Your task to perform on an android device: Open ESPN.com Image 0: 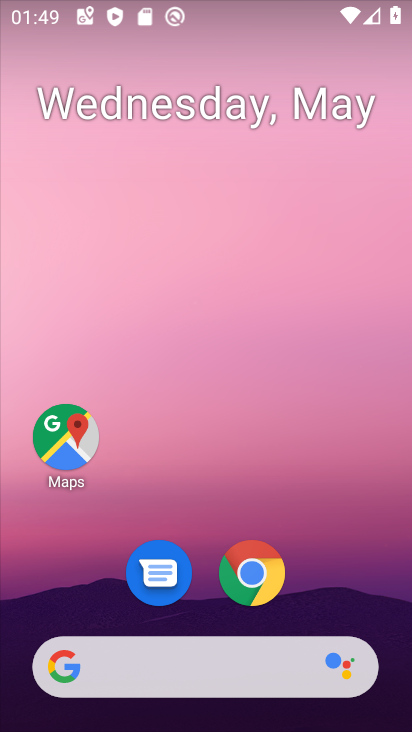
Step 0: click (249, 568)
Your task to perform on an android device: Open ESPN.com Image 1: 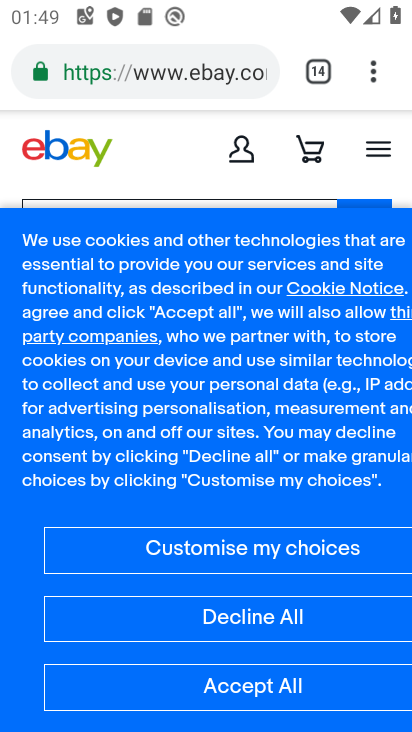
Step 1: click (379, 74)
Your task to perform on an android device: Open ESPN.com Image 2: 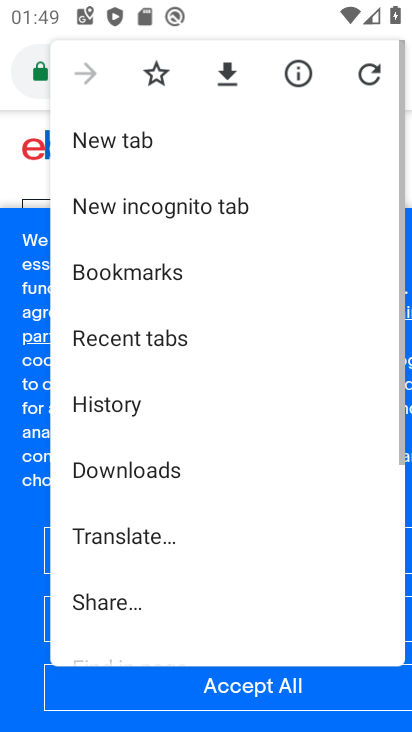
Step 2: click (142, 146)
Your task to perform on an android device: Open ESPN.com Image 3: 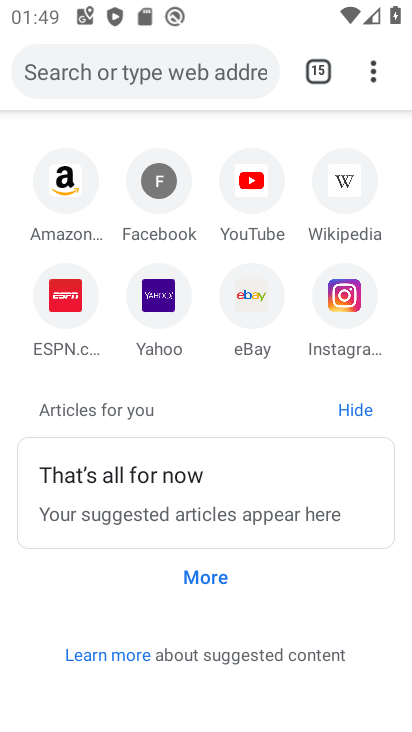
Step 3: click (73, 305)
Your task to perform on an android device: Open ESPN.com Image 4: 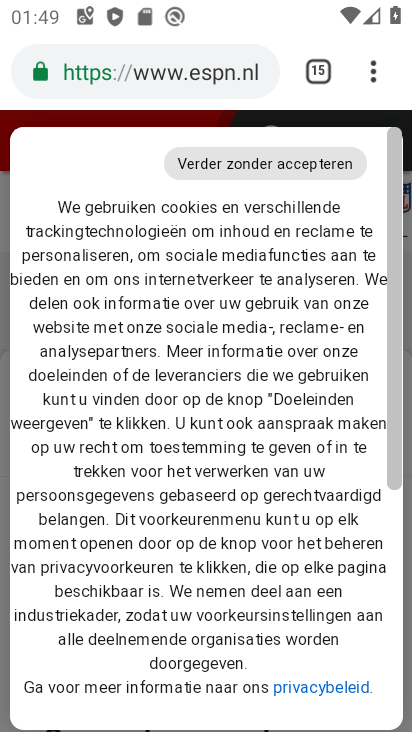
Step 4: task complete